Your task to perform on an android device: turn off translation in the chrome app Image 0: 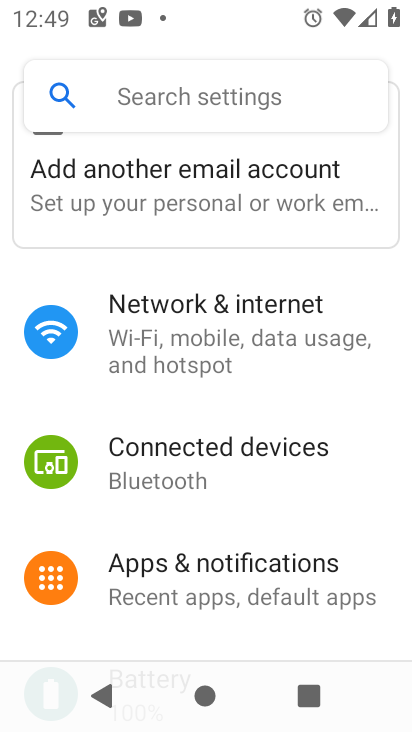
Step 0: press home button
Your task to perform on an android device: turn off translation in the chrome app Image 1: 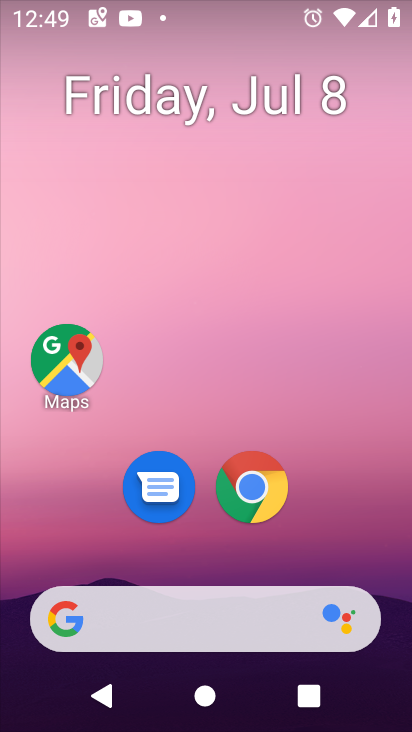
Step 1: drag from (356, 486) to (347, 115)
Your task to perform on an android device: turn off translation in the chrome app Image 2: 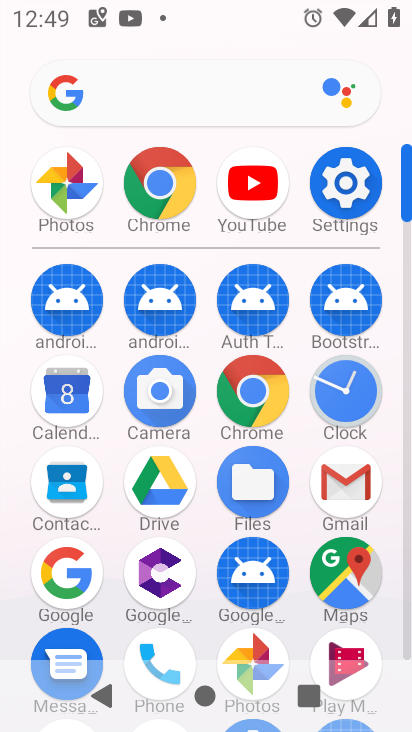
Step 2: click (268, 401)
Your task to perform on an android device: turn off translation in the chrome app Image 3: 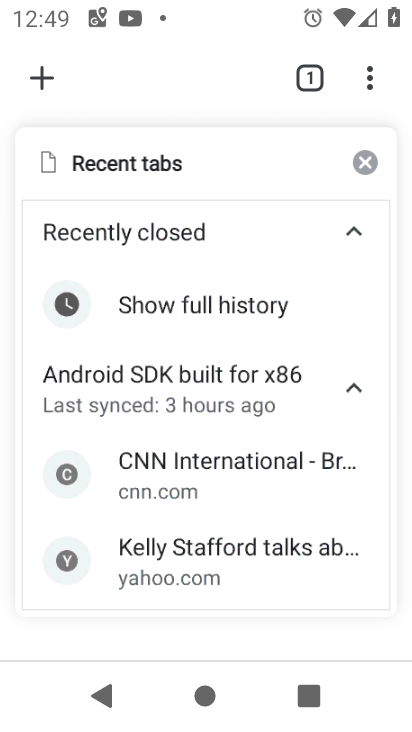
Step 3: click (370, 88)
Your task to perform on an android device: turn off translation in the chrome app Image 4: 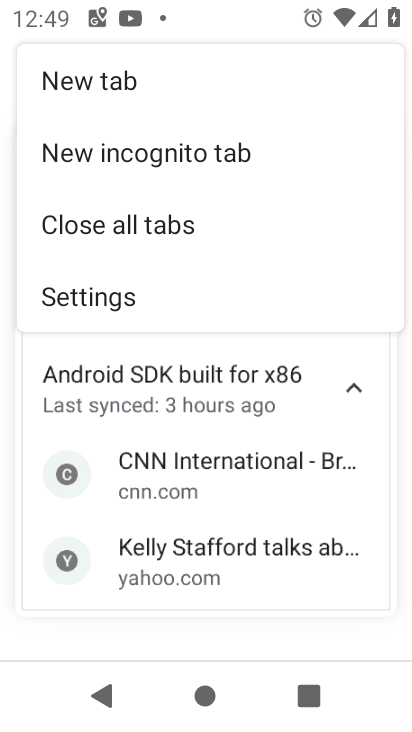
Step 4: click (161, 299)
Your task to perform on an android device: turn off translation in the chrome app Image 5: 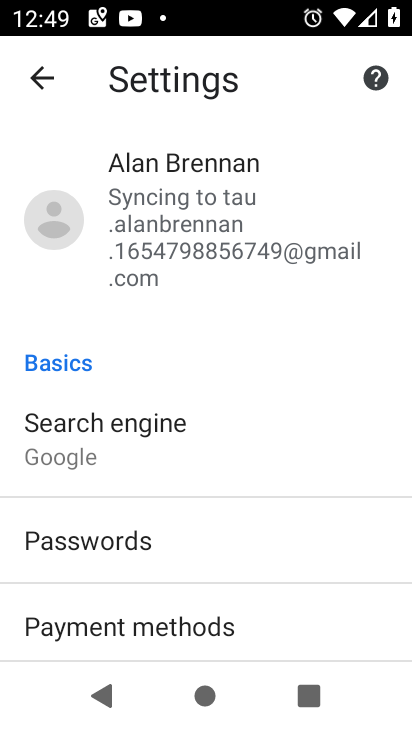
Step 5: drag from (344, 538) to (344, 442)
Your task to perform on an android device: turn off translation in the chrome app Image 6: 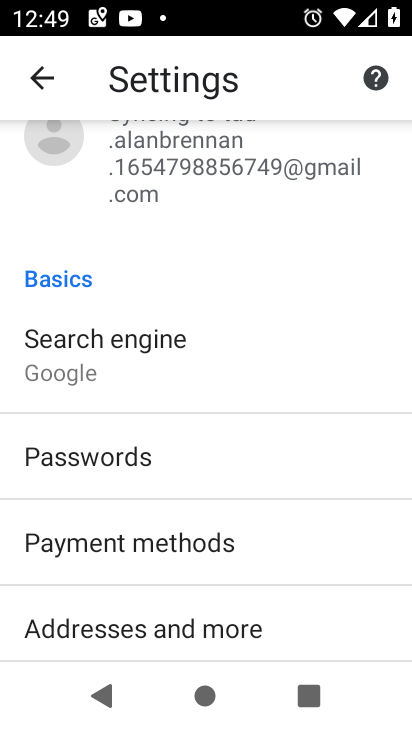
Step 6: drag from (331, 598) to (344, 489)
Your task to perform on an android device: turn off translation in the chrome app Image 7: 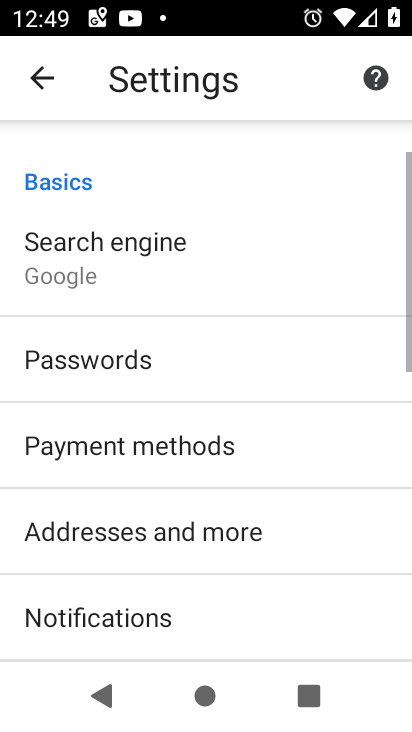
Step 7: drag from (353, 591) to (354, 487)
Your task to perform on an android device: turn off translation in the chrome app Image 8: 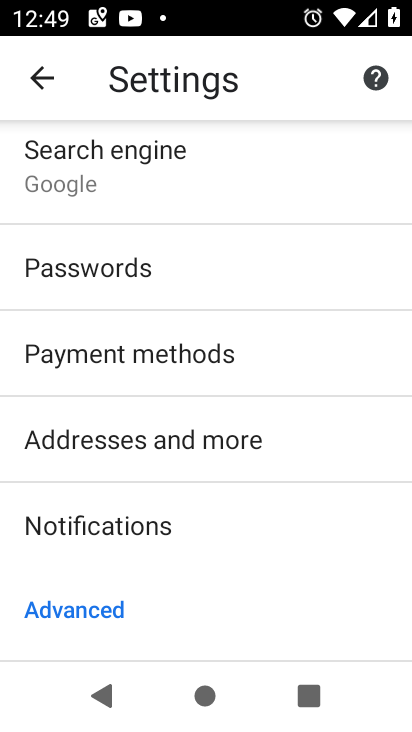
Step 8: drag from (334, 582) to (341, 463)
Your task to perform on an android device: turn off translation in the chrome app Image 9: 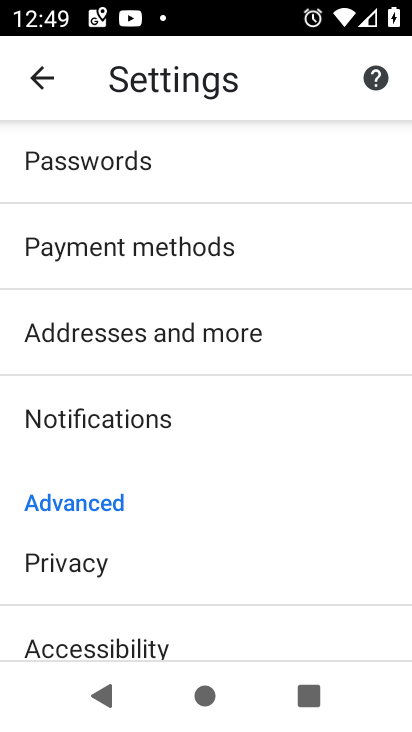
Step 9: drag from (323, 572) to (324, 461)
Your task to perform on an android device: turn off translation in the chrome app Image 10: 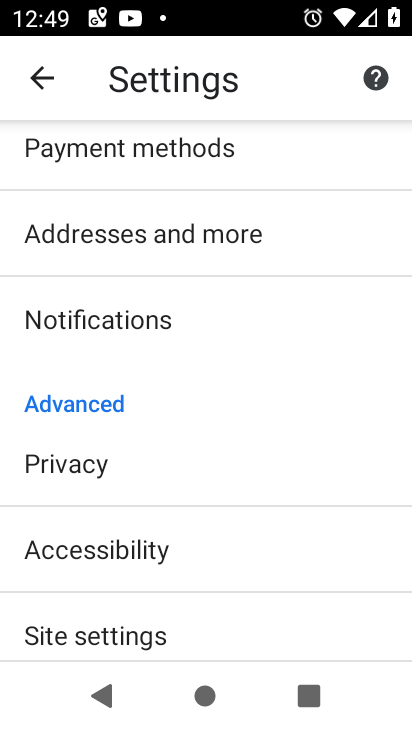
Step 10: drag from (325, 584) to (328, 486)
Your task to perform on an android device: turn off translation in the chrome app Image 11: 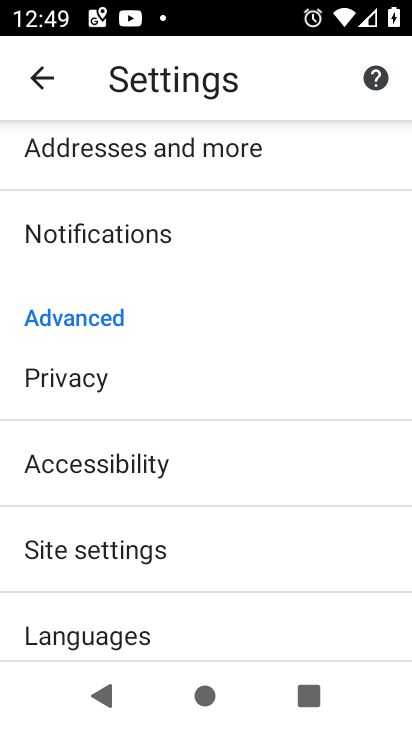
Step 11: drag from (333, 571) to (336, 461)
Your task to perform on an android device: turn off translation in the chrome app Image 12: 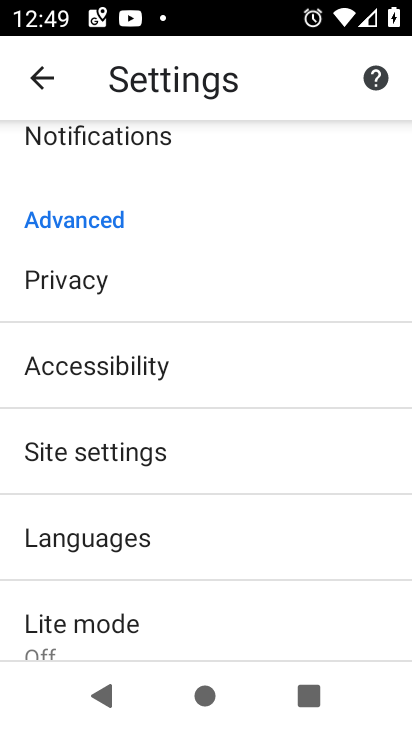
Step 12: click (334, 524)
Your task to perform on an android device: turn off translation in the chrome app Image 13: 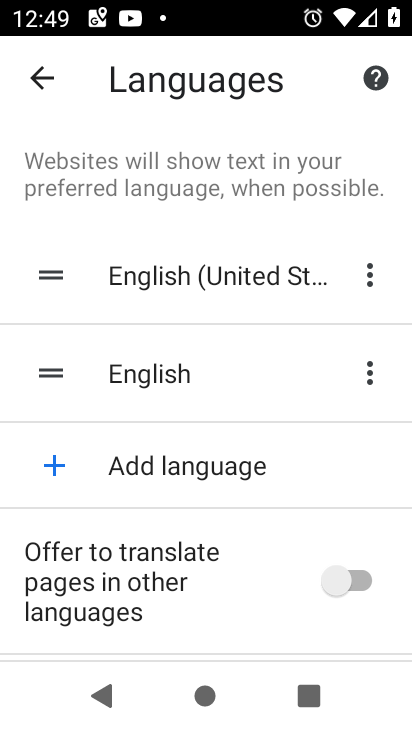
Step 13: task complete